Your task to perform on an android device: Go to location settings Image 0: 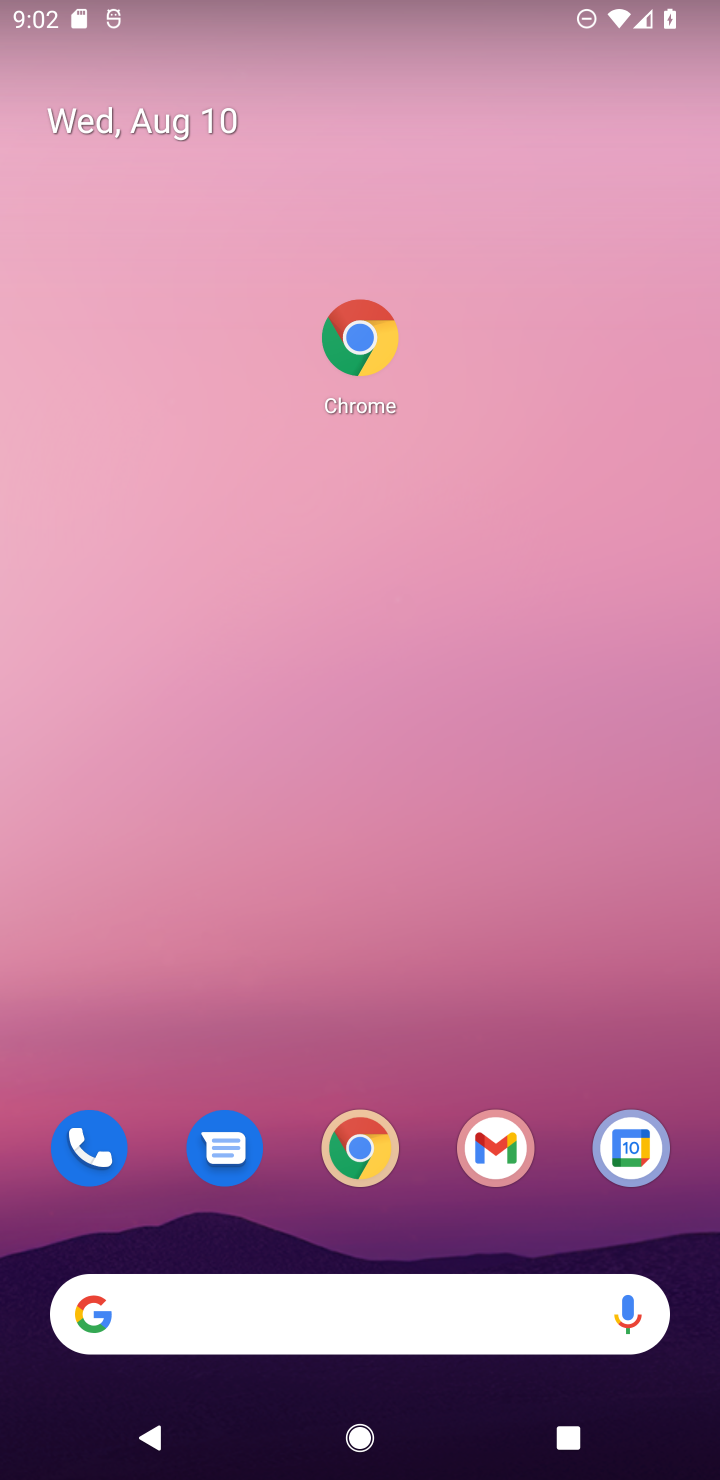
Step 0: drag from (303, 1202) to (308, 540)
Your task to perform on an android device: Go to location settings Image 1: 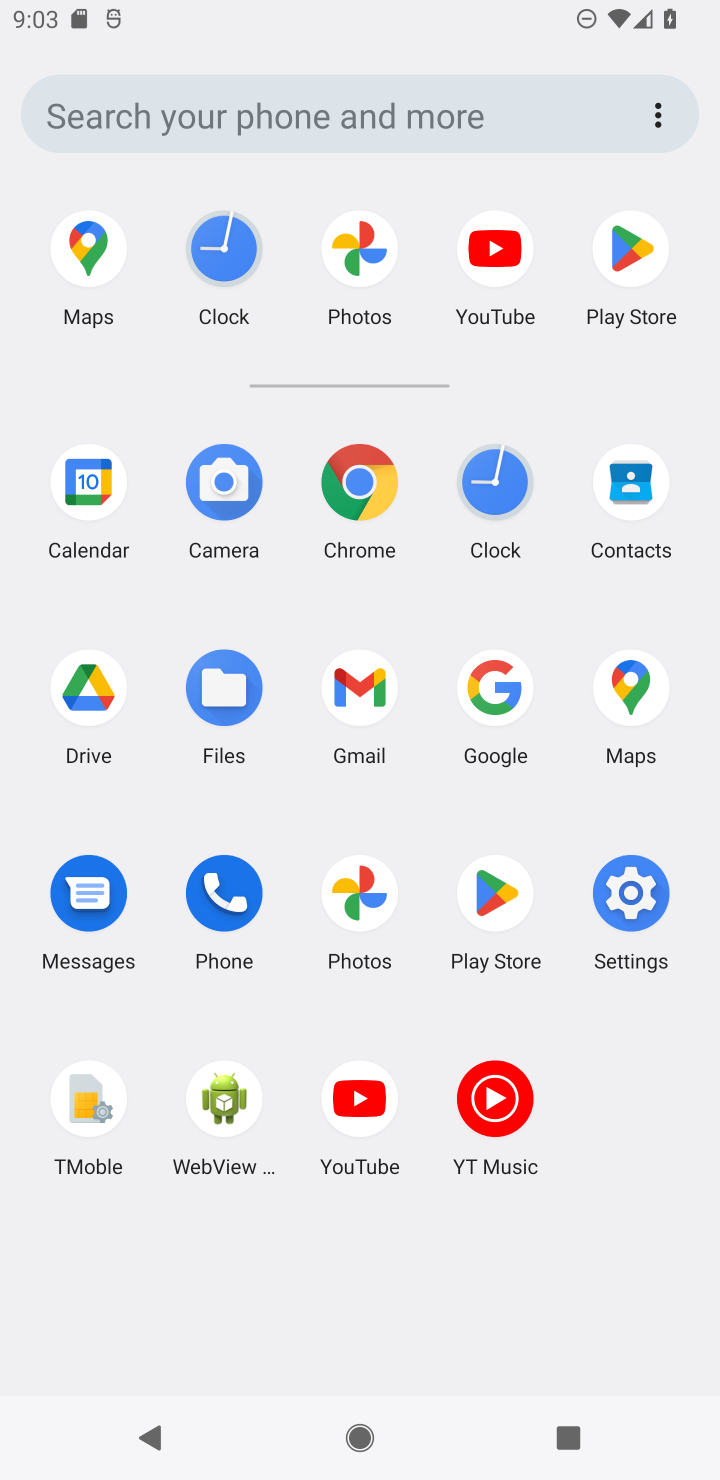
Step 1: click (634, 864)
Your task to perform on an android device: Go to location settings Image 2: 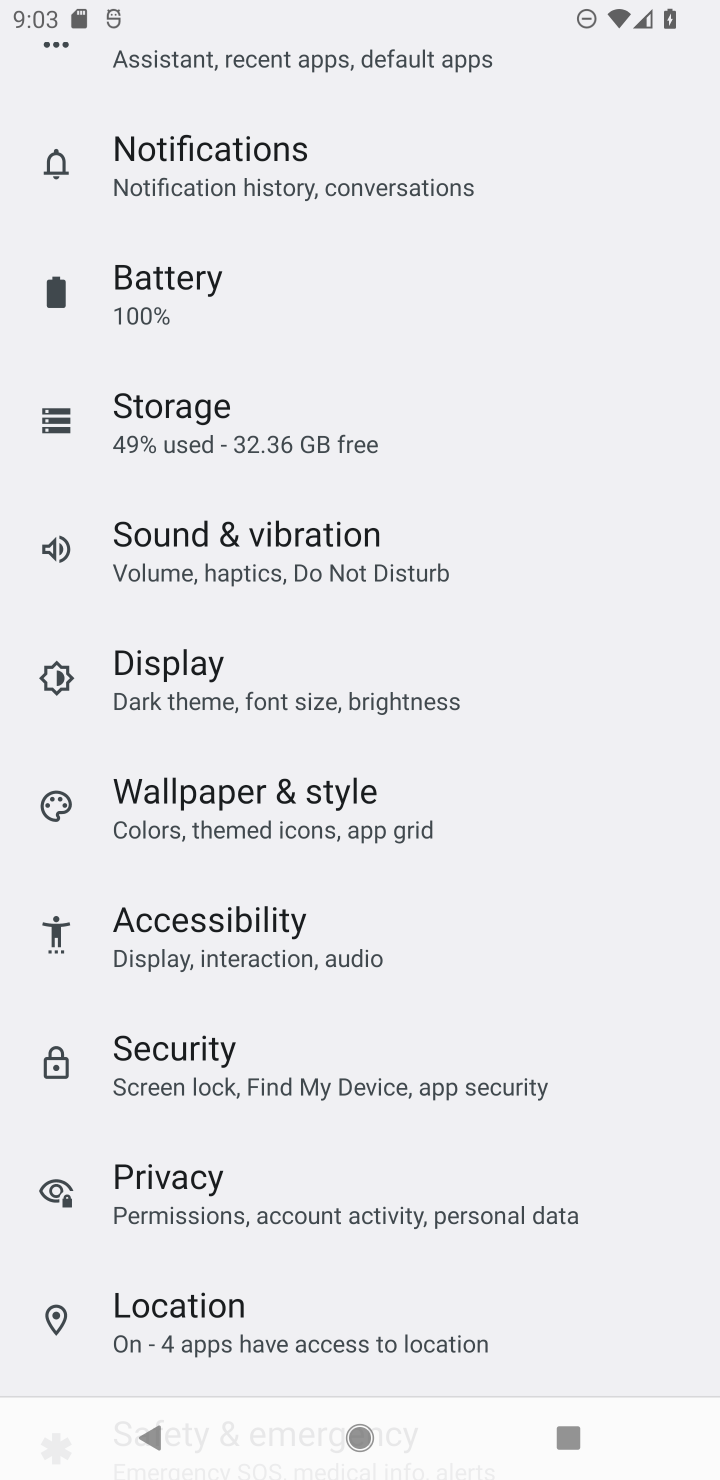
Step 2: click (227, 1267)
Your task to perform on an android device: Go to location settings Image 3: 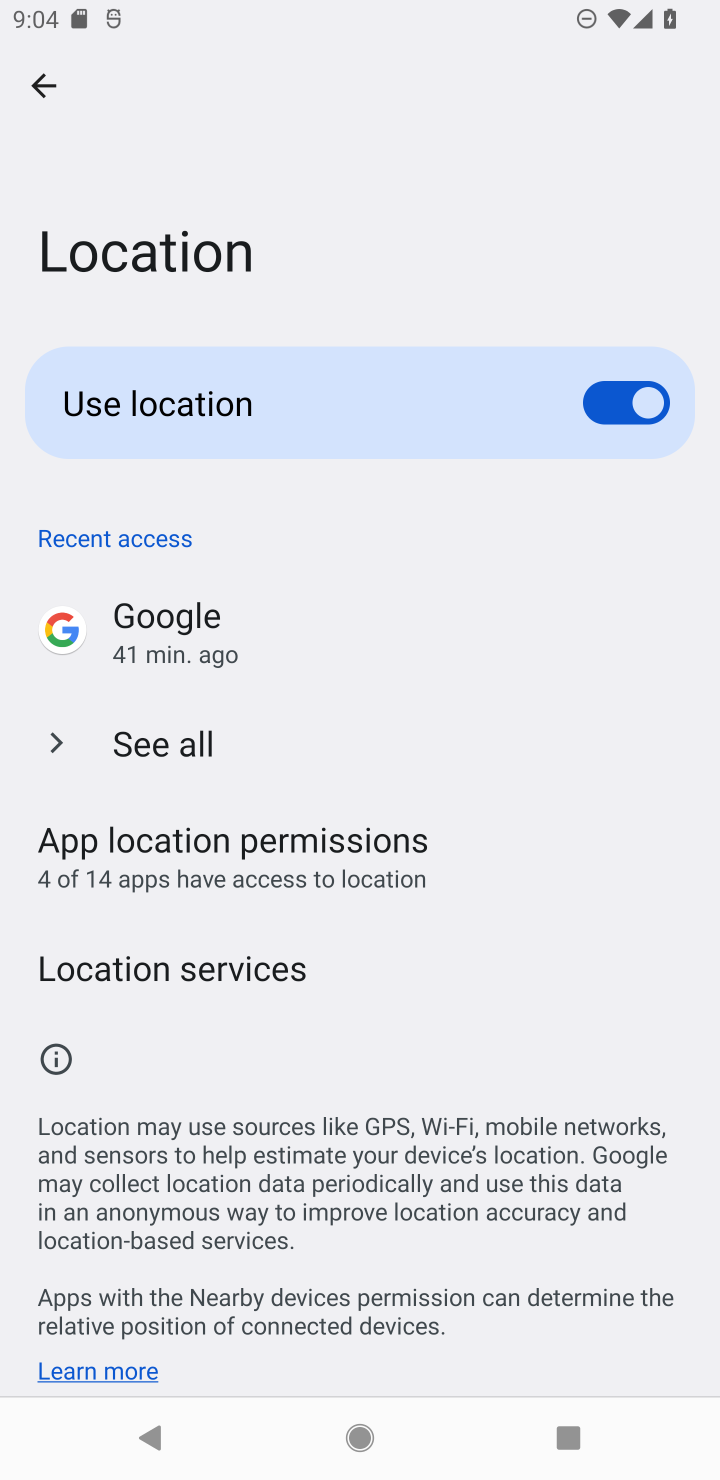
Step 3: task complete